Your task to perform on an android device: Go to Reddit.com Image 0: 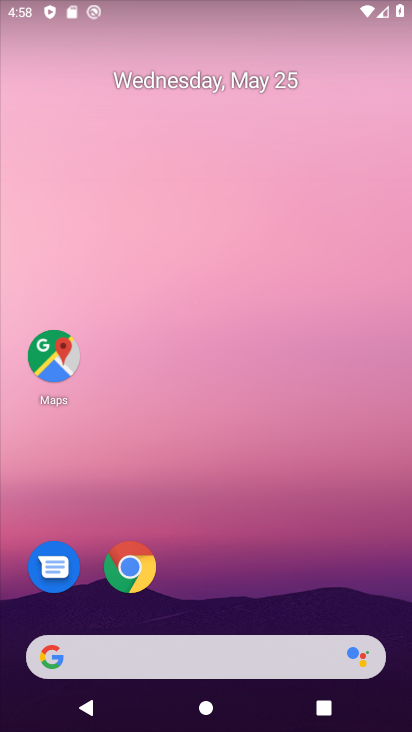
Step 0: drag from (254, 475) to (217, 4)
Your task to perform on an android device: Go to Reddit.com Image 1: 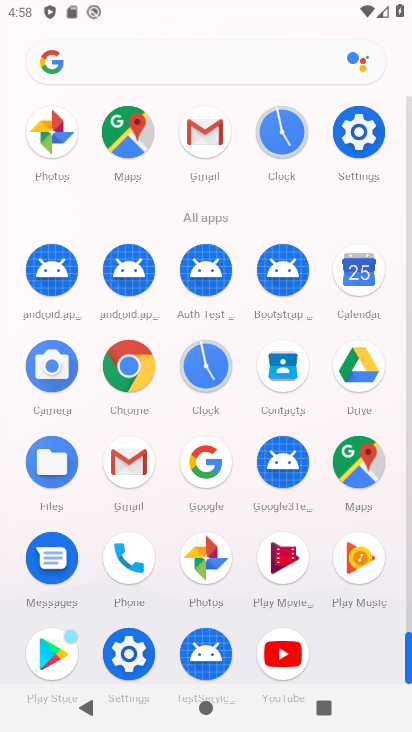
Step 1: drag from (9, 542) to (6, 178)
Your task to perform on an android device: Go to Reddit.com Image 2: 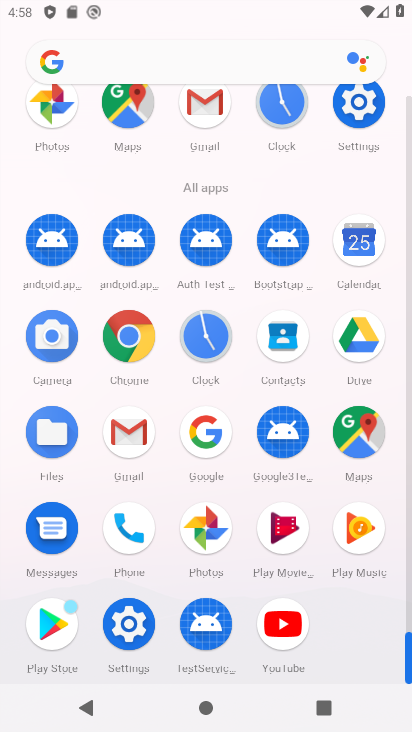
Step 2: drag from (10, 592) to (22, 277)
Your task to perform on an android device: Go to Reddit.com Image 3: 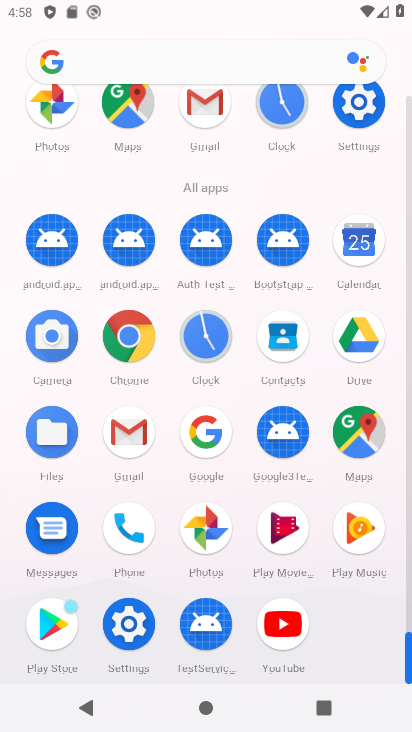
Step 3: click (128, 327)
Your task to perform on an android device: Go to Reddit.com Image 4: 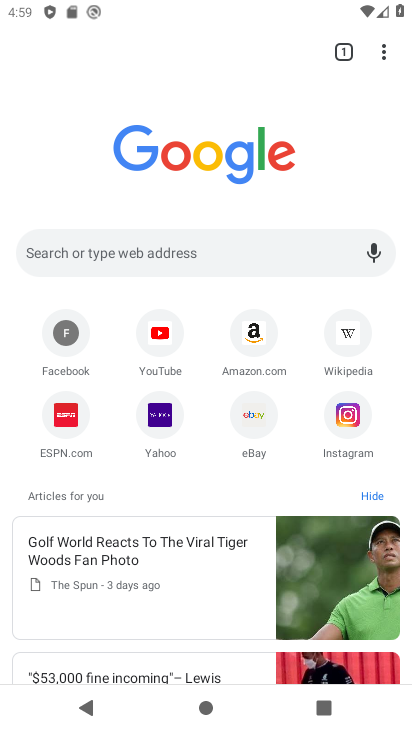
Step 4: click (226, 249)
Your task to perform on an android device: Go to Reddit.com Image 5: 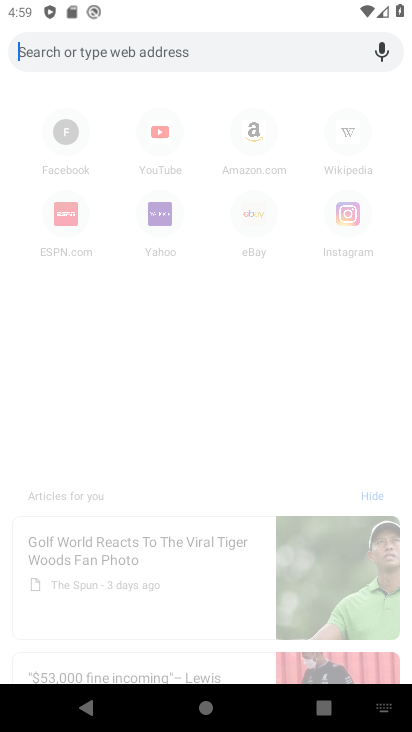
Step 5: type "Reddit.com"
Your task to perform on an android device: Go to Reddit.com Image 6: 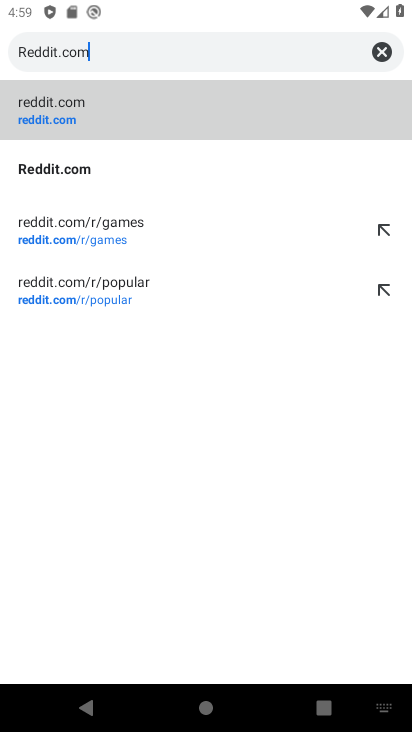
Step 6: type ""
Your task to perform on an android device: Go to Reddit.com Image 7: 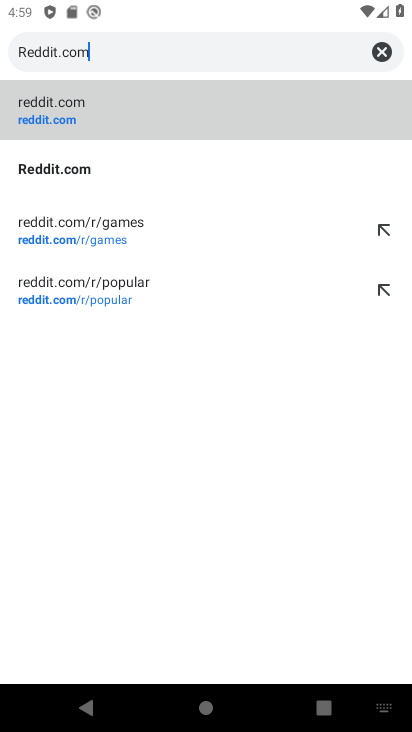
Step 7: click (133, 99)
Your task to perform on an android device: Go to Reddit.com Image 8: 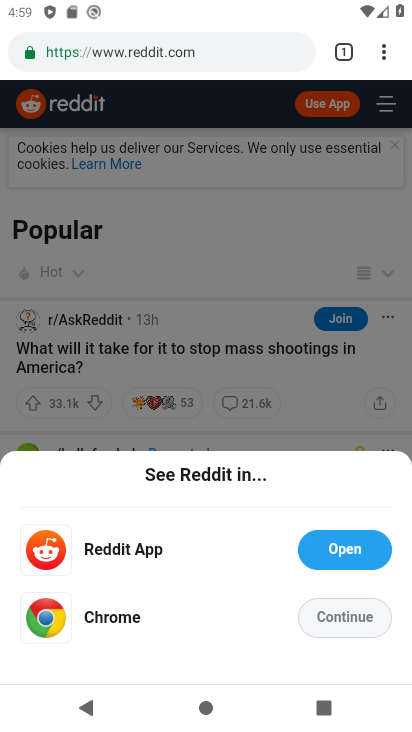
Step 8: task complete